Your task to perform on an android device: turn on sleep mode Image 0: 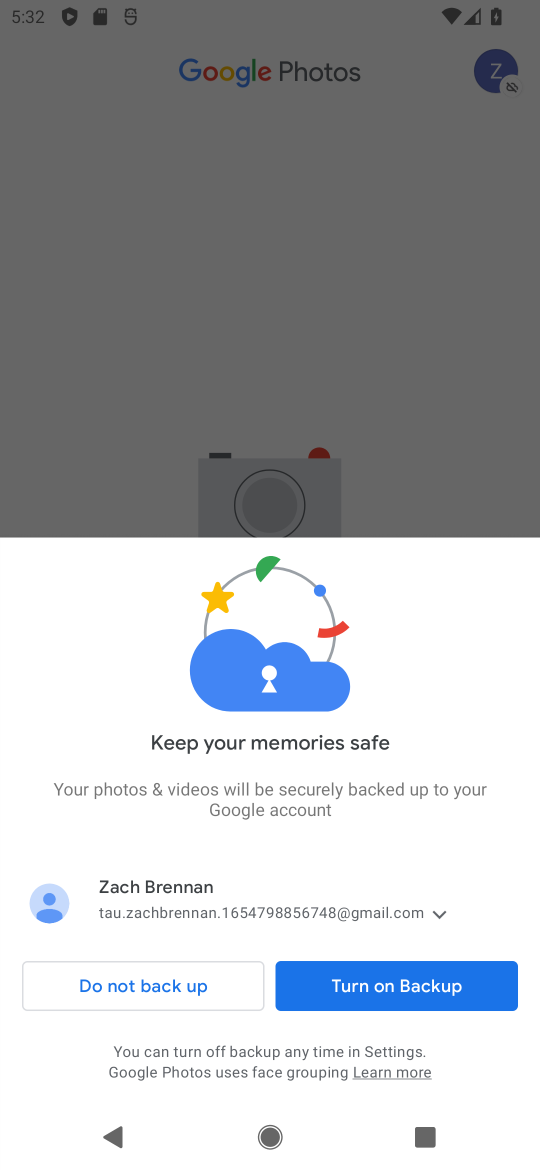
Step 0: press home button
Your task to perform on an android device: turn on sleep mode Image 1: 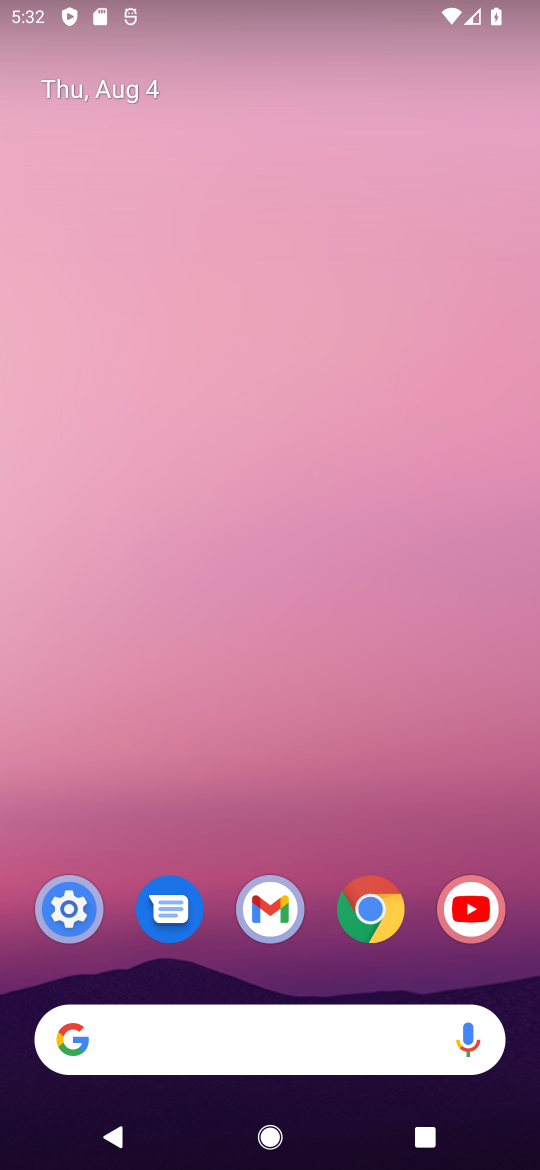
Step 1: drag from (220, 777) to (299, 102)
Your task to perform on an android device: turn on sleep mode Image 2: 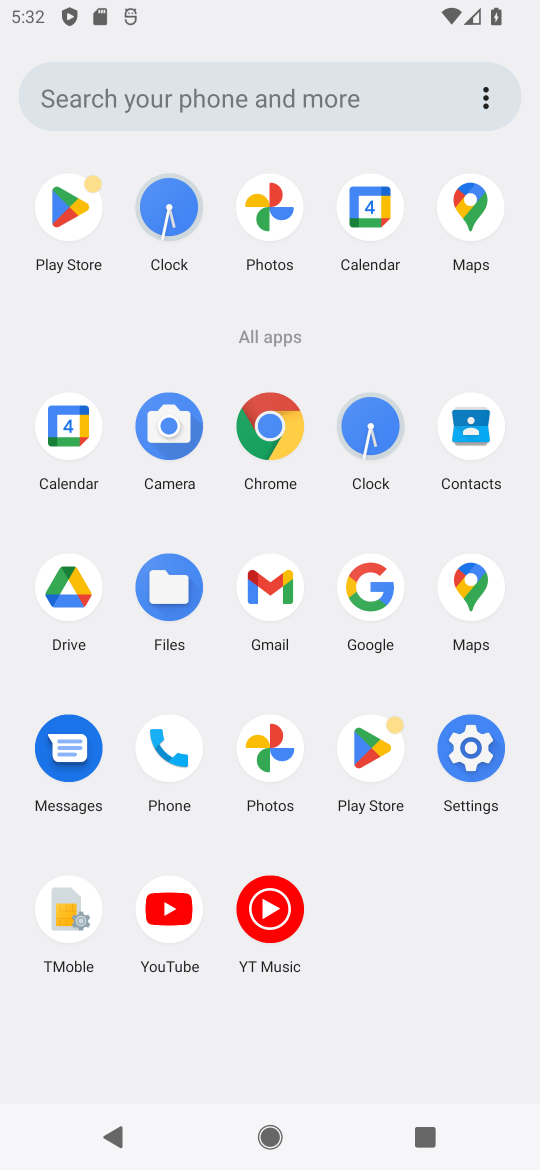
Step 2: click (468, 767)
Your task to perform on an android device: turn on sleep mode Image 3: 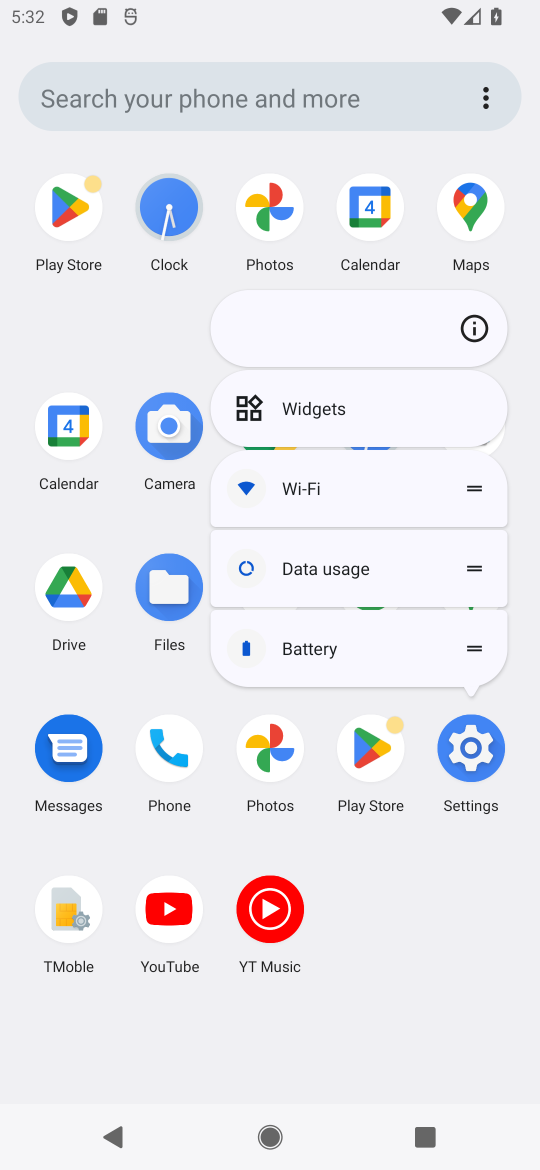
Step 3: click (468, 764)
Your task to perform on an android device: turn on sleep mode Image 4: 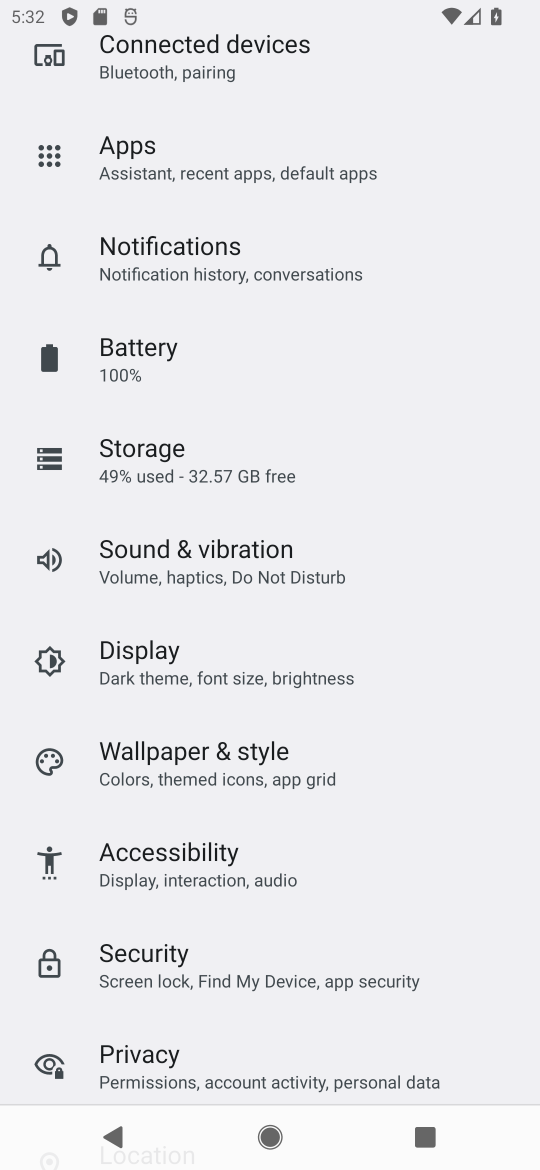
Step 4: click (192, 676)
Your task to perform on an android device: turn on sleep mode Image 5: 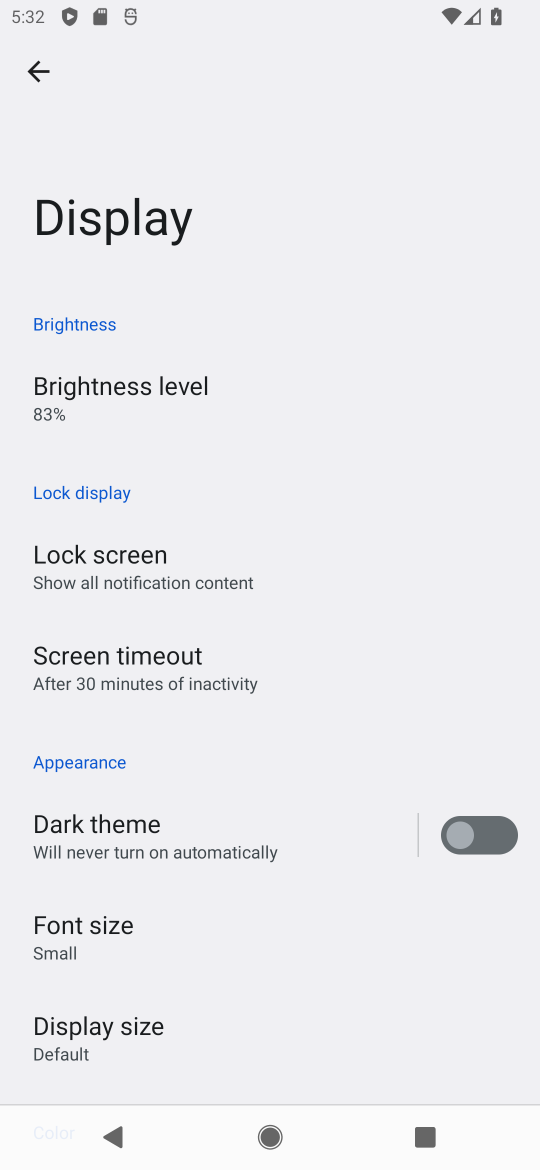
Step 5: click (144, 656)
Your task to perform on an android device: turn on sleep mode Image 6: 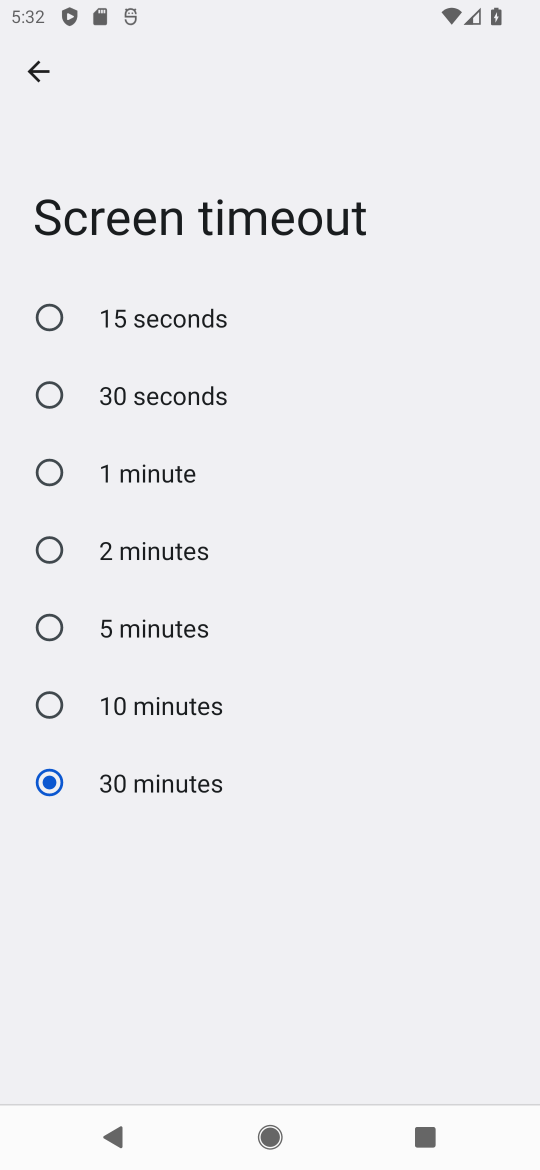
Step 6: task complete